Your task to perform on an android device: Do I have any events today? Image 0: 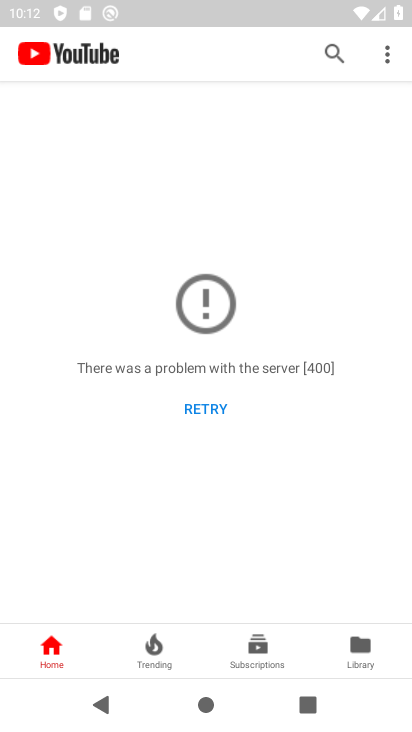
Step 0: press back button
Your task to perform on an android device: Do I have any events today? Image 1: 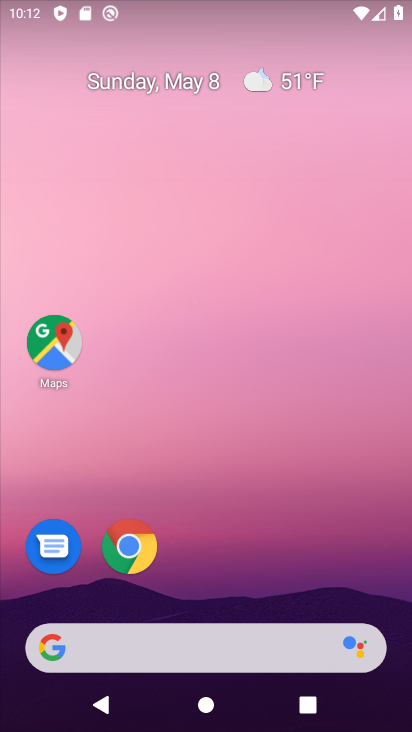
Step 1: drag from (268, 599) to (214, 67)
Your task to perform on an android device: Do I have any events today? Image 2: 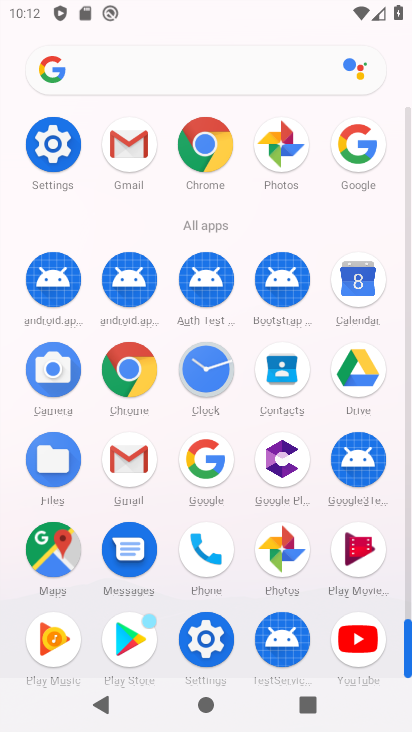
Step 2: click (357, 284)
Your task to perform on an android device: Do I have any events today? Image 3: 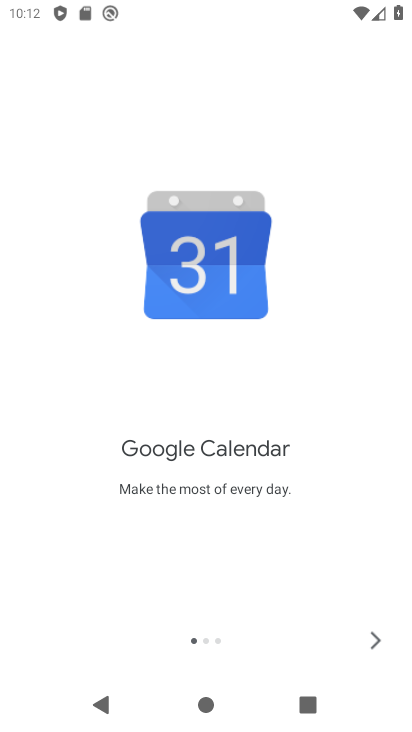
Step 3: click (374, 640)
Your task to perform on an android device: Do I have any events today? Image 4: 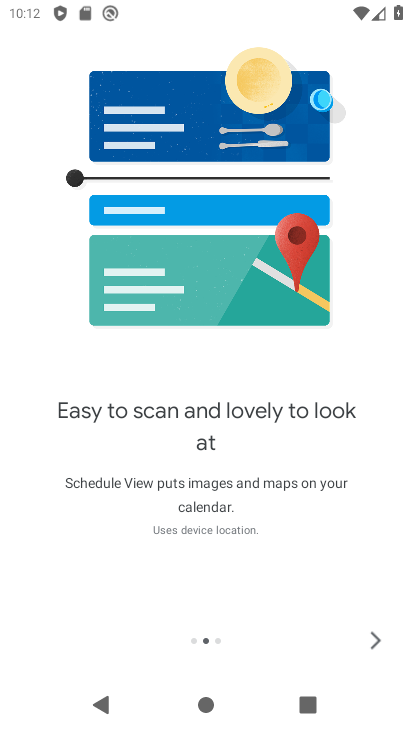
Step 4: click (377, 636)
Your task to perform on an android device: Do I have any events today? Image 5: 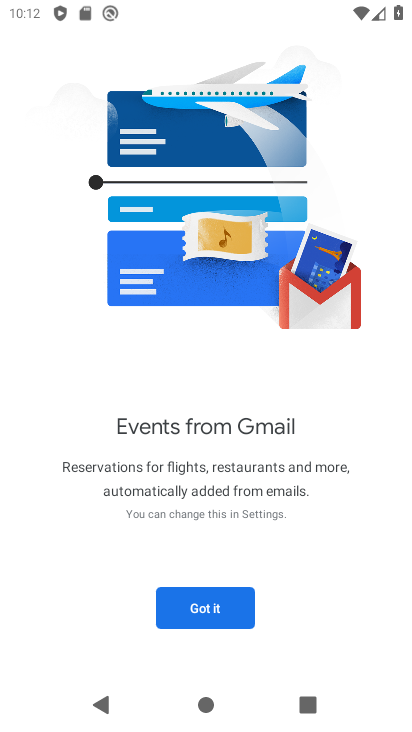
Step 5: click (211, 606)
Your task to perform on an android device: Do I have any events today? Image 6: 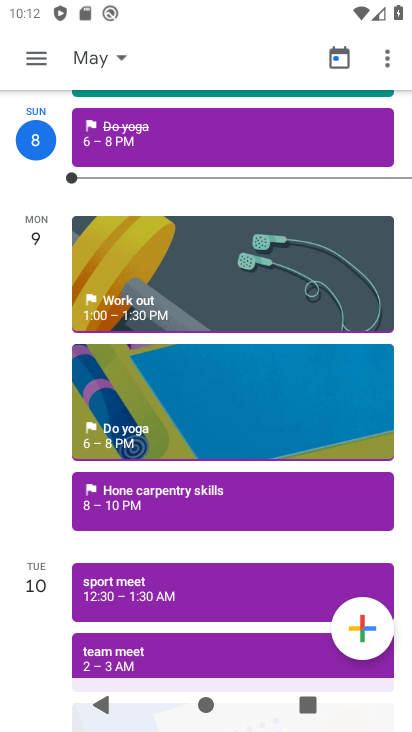
Step 6: click (119, 54)
Your task to perform on an android device: Do I have any events today? Image 7: 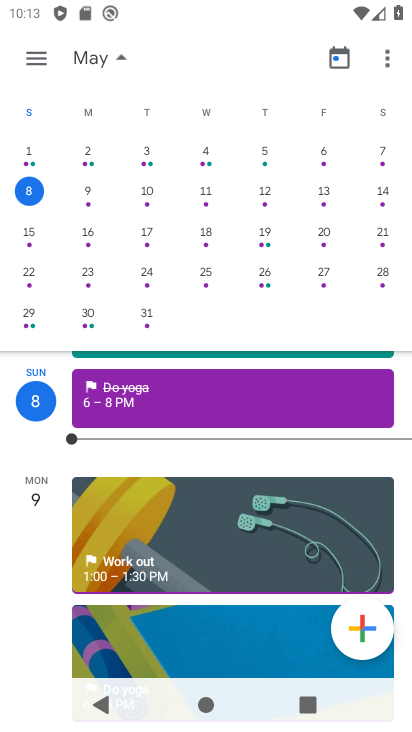
Step 7: click (20, 194)
Your task to perform on an android device: Do I have any events today? Image 8: 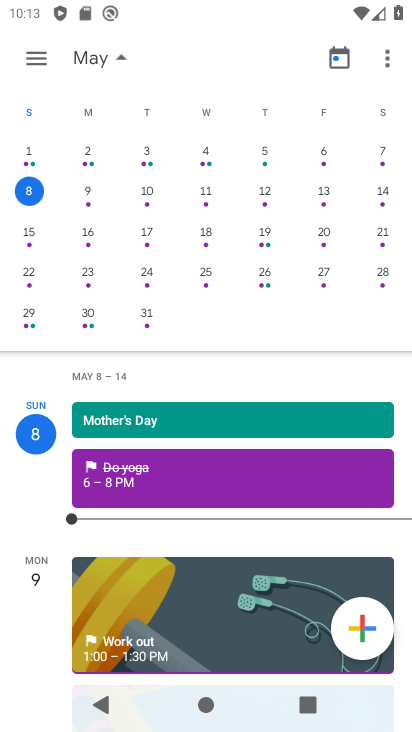
Step 8: click (227, 424)
Your task to perform on an android device: Do I have any events today? Image 9: 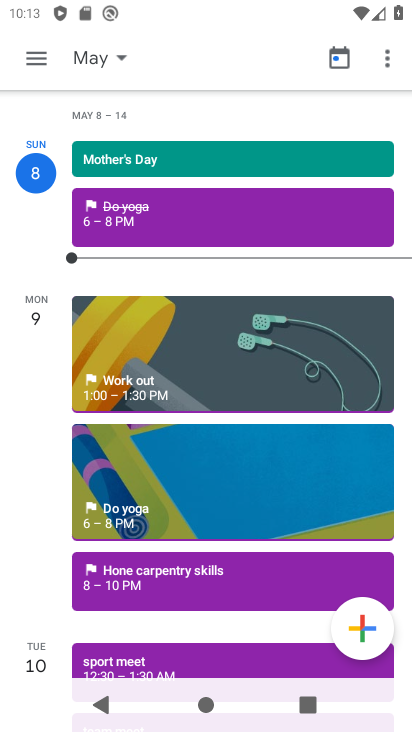
Step 9: task complete